Your task to perform on an android device: find photos in the google photos app Image 0: 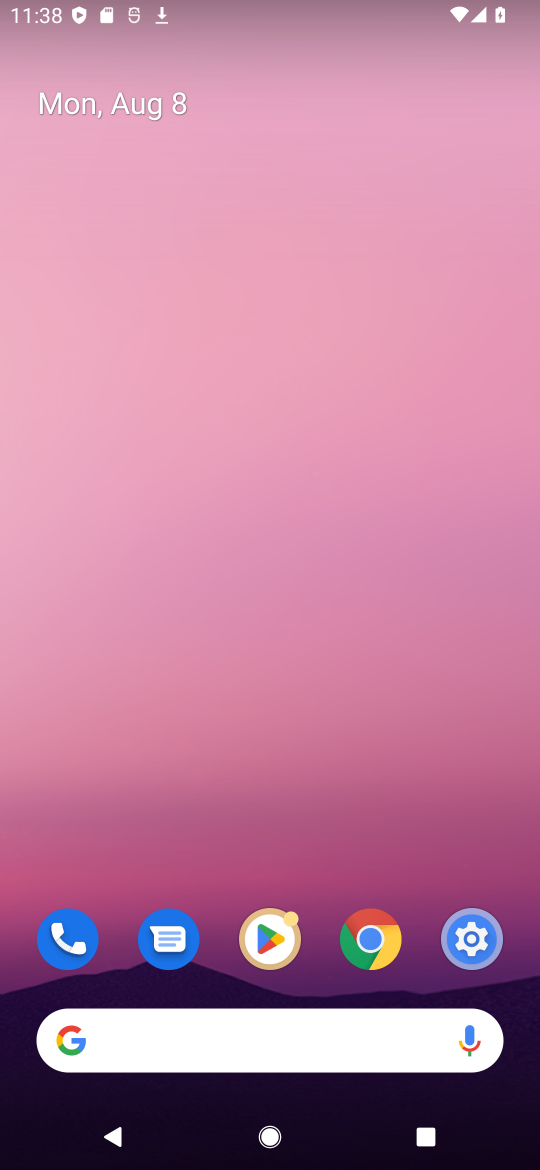
Step 0: drag from (276, 1005) to (166, 232)
Your task to perform on an android device: find photos in the google photos app Image 1: 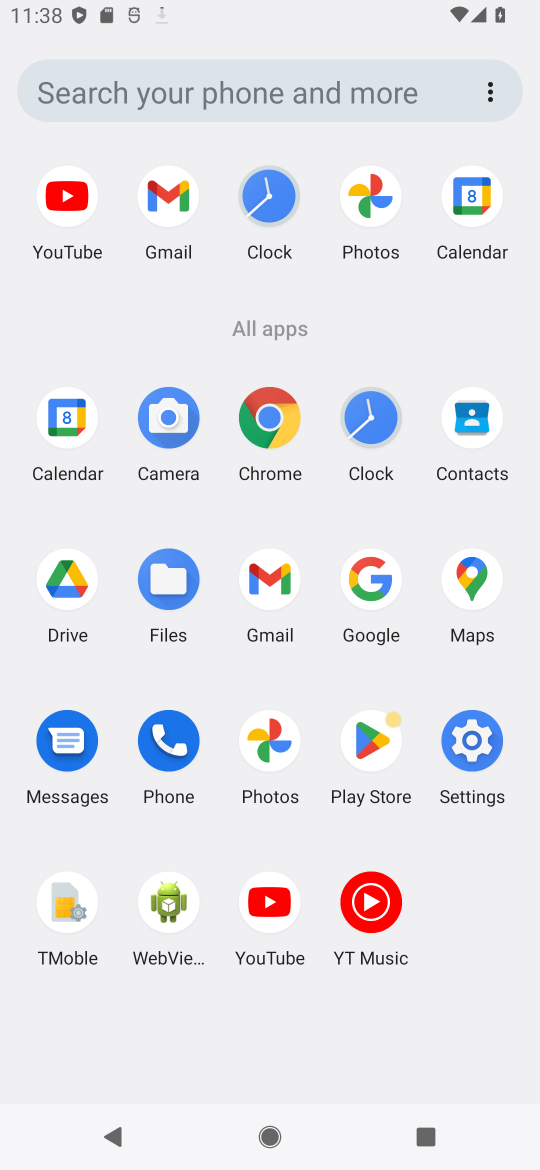
Step 1: click (377, 202)
Your task to perform on an android device: find photos in the google photos app Image 2: 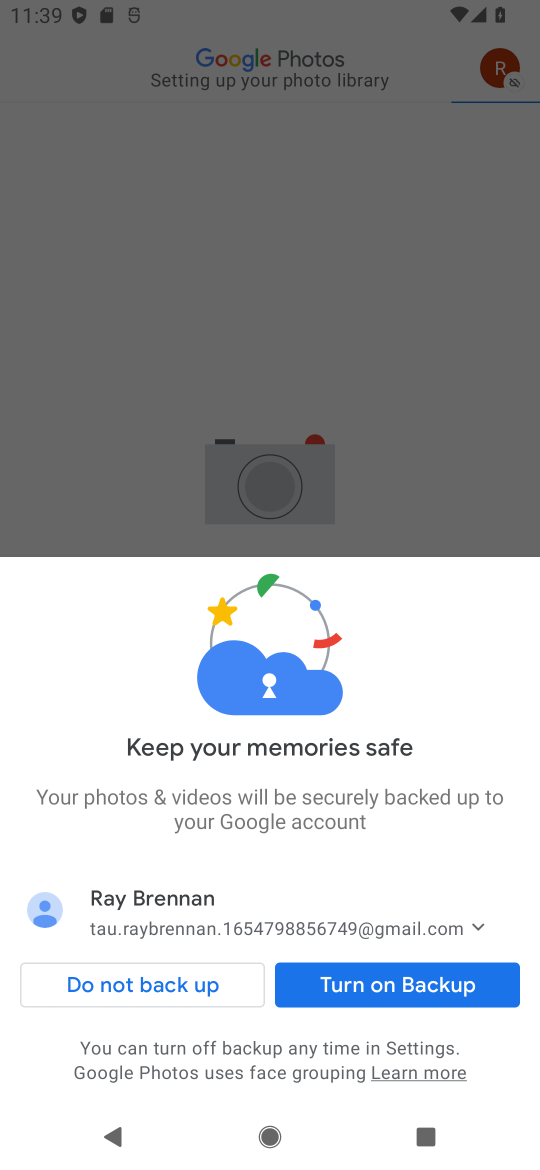
Step 2: click (382, 987)
Your task to perform on an android device: find photos in the google photos app Image 3: 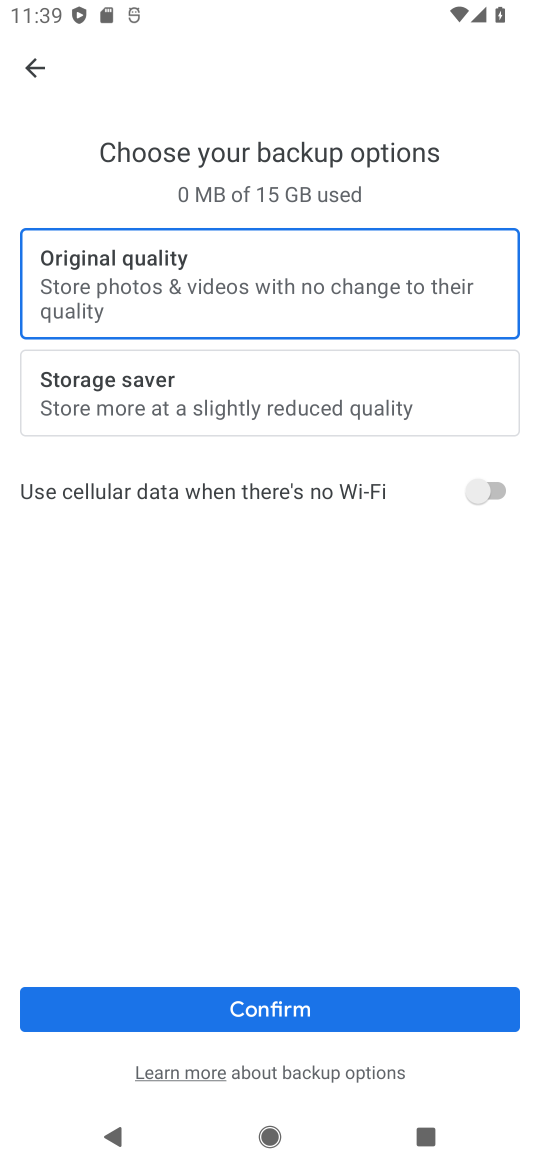
Step 3: click (382, 987)
Your task to perform on an android device: find photos in the google photos app Image 4: 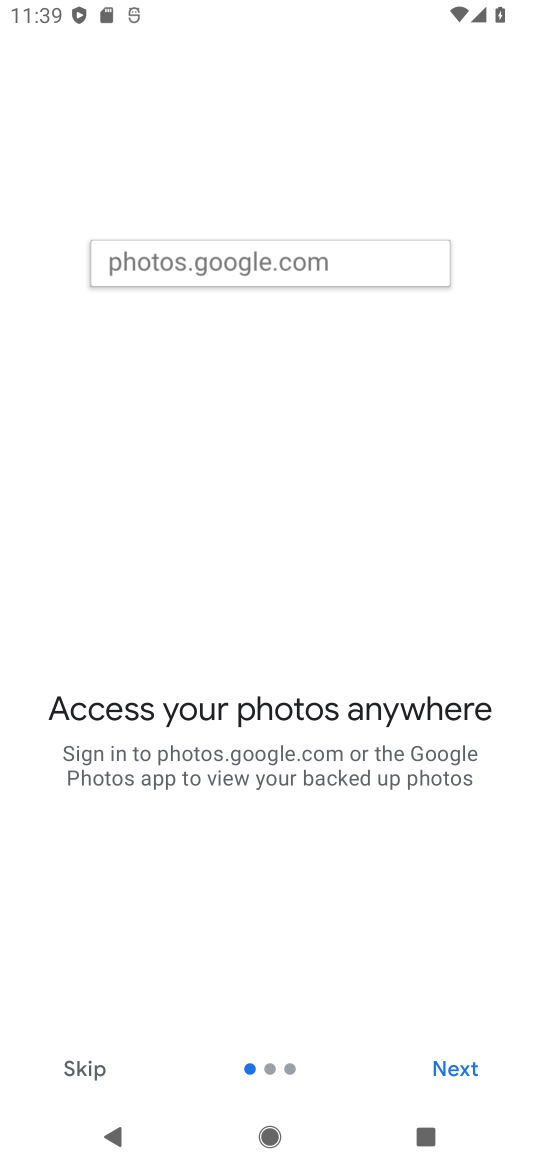
Step 4: click (85, 1067)
Your task to perform on an android device: find photos in the google photos app Image 5: 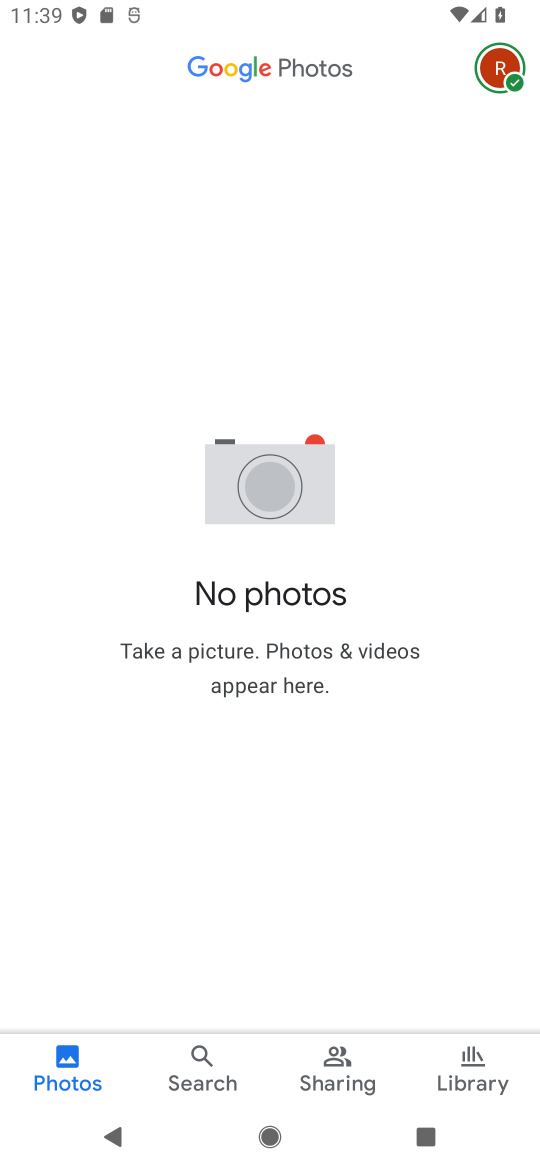
Step 5: click (196, 1051)
Your task to perform on an android device: find photos in the google photos app Image 6: 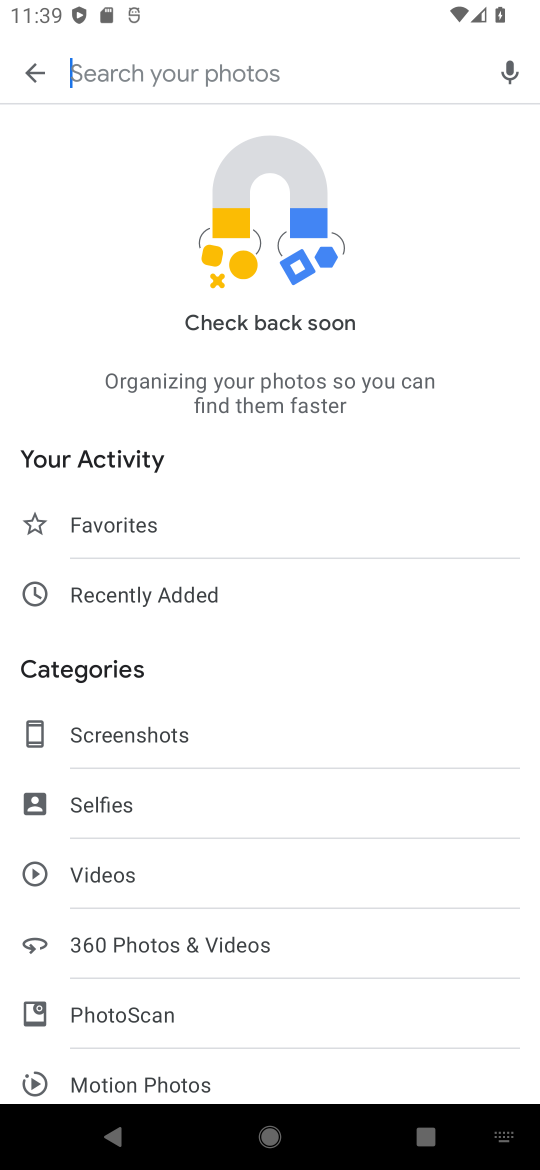
Step 6: click (88, 507)
Your task to perform on an android device: find photos in the google photos app Image 7: 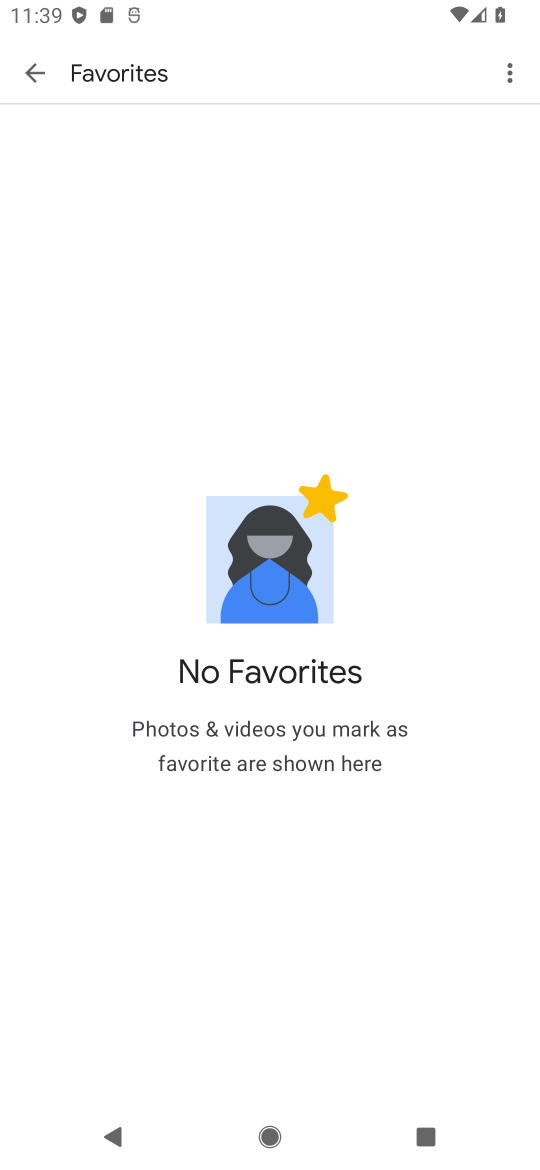
Step 7: task complete